Your task to perform on an android device: Set the phone to "Do not disturb". Image 0: 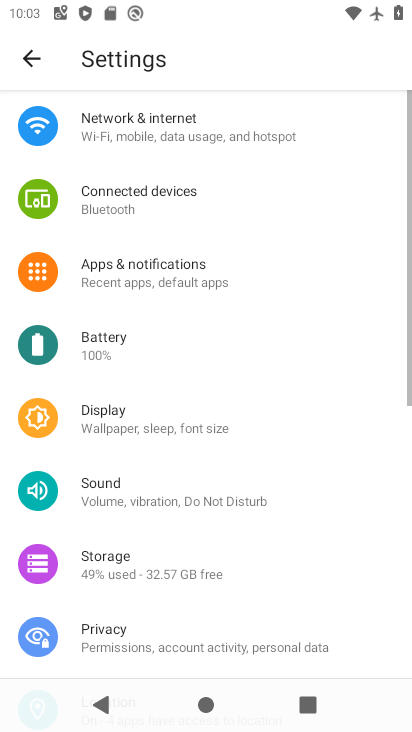
Step 0: press home button
Your task to perform on an android device: Set the phone to "Do not disturb". Image 1: 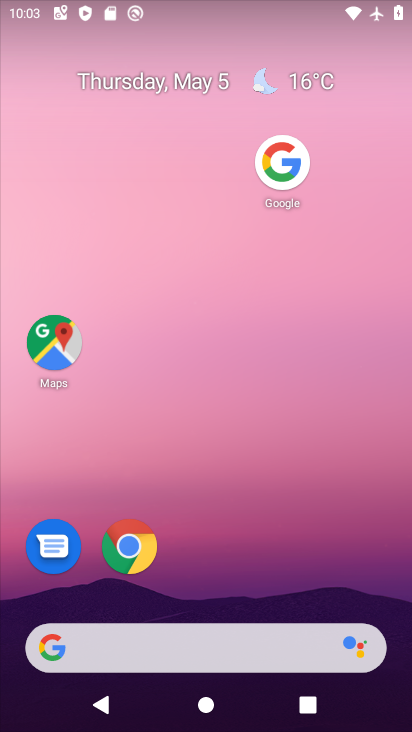
Step 1: drag from (151, 654) to (334, 105)
Your task to perform on an android device: Set the phone to "Do not disturb". Image 2: 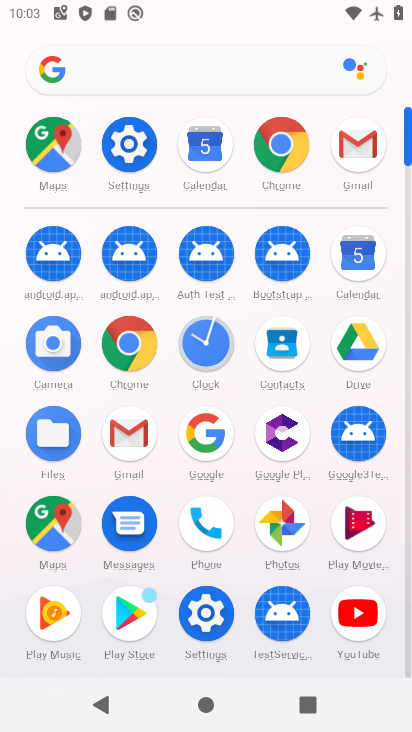
Step 2: click (129, 140)
Your task to perform on an android device: Set the phone to "Do not disturb". Image 3: 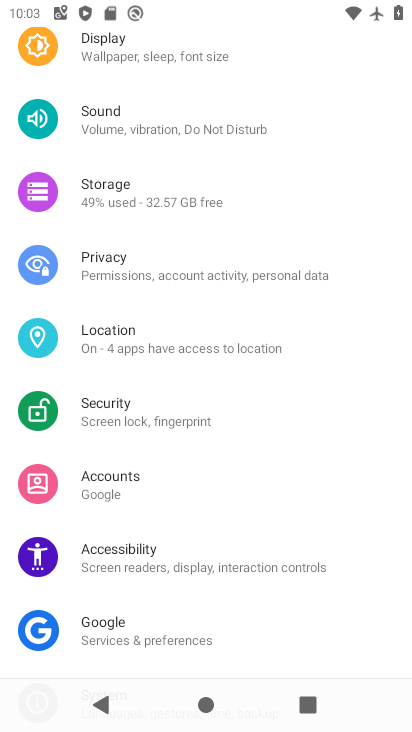
Step 3: click (160, 127)
Your task to perform on an android device: Set the phone to "Do not disturb". Image 4: 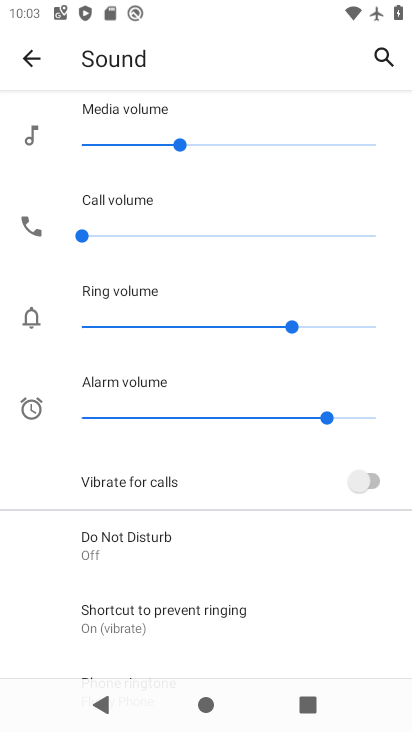
Step 4: click (106, 544)
Your task to perform on an android device: Set the phone to "Do not disturb". Image 5: 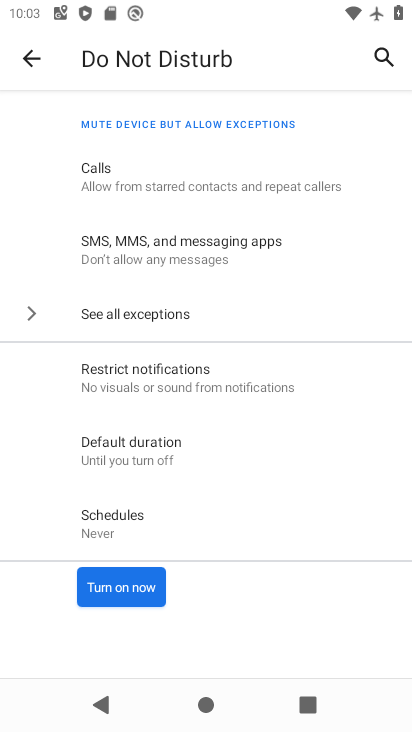
Step 5: click (118, 583)
Your task to perform on an android device: Set the phone to "Do not disturb". Image 6: 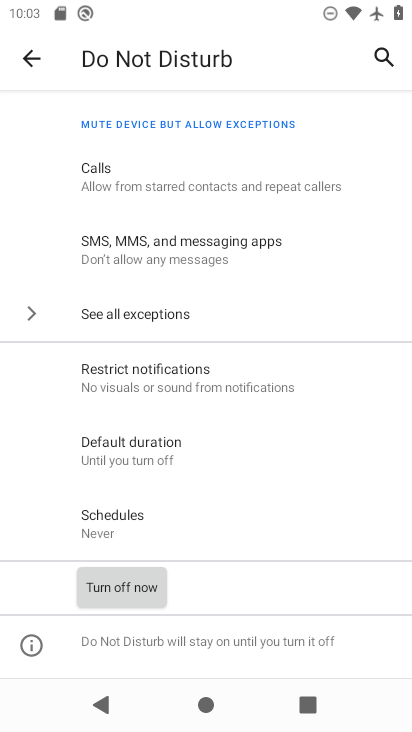
Step 6: task complete